Your task to perform on an android device: turn on improve location accuracy Image 0: 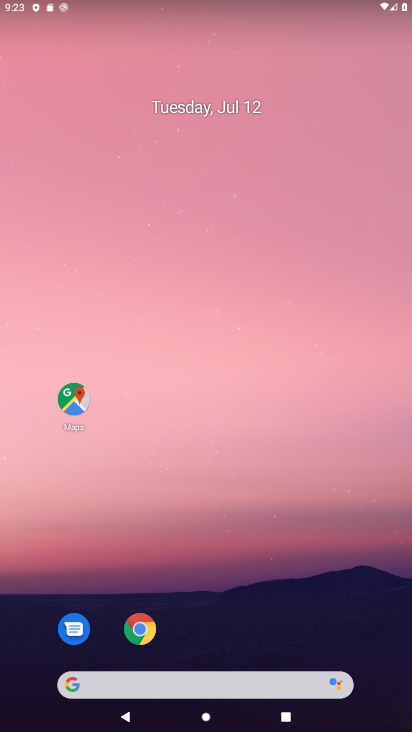
Step 0: drag from (213, 662) to (248, 227)
Your task to perform on an android device: turn on improve location accuracy Image 1: 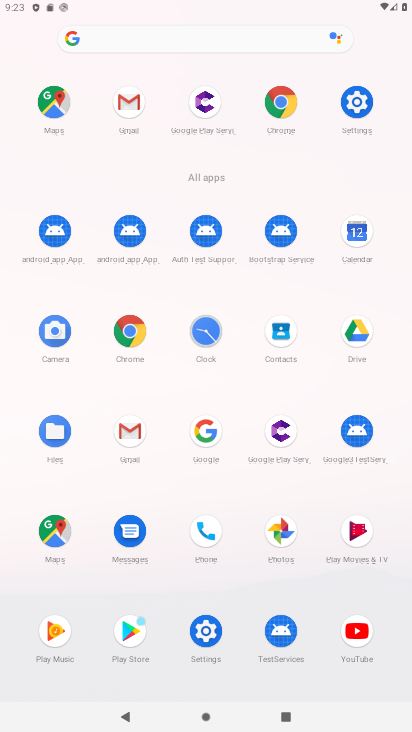
Step 1: click (210, 618)
Your task to perform on an android device: turn on improve location accuracy Image 2: 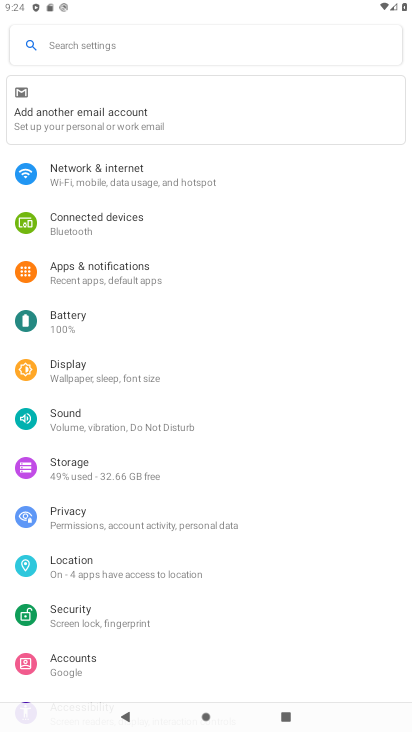
Step 2: click (79, 572)
Your task to perform on an android device: turn on improve location accuracy Image 3: 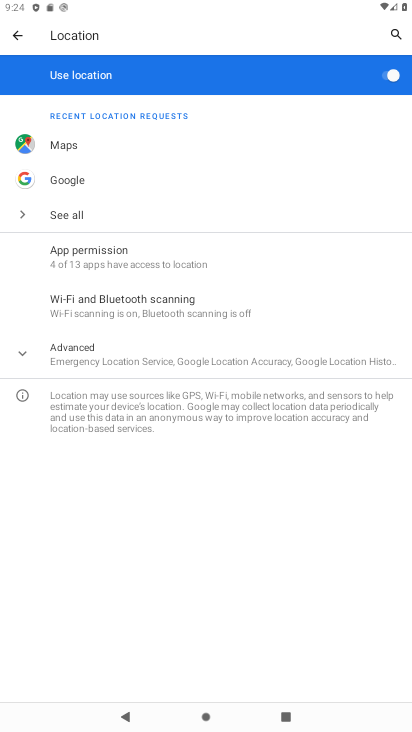
Step 3: click (140, 358)
Your task to perform on an android device: turn on improve location accuracy Image 4: 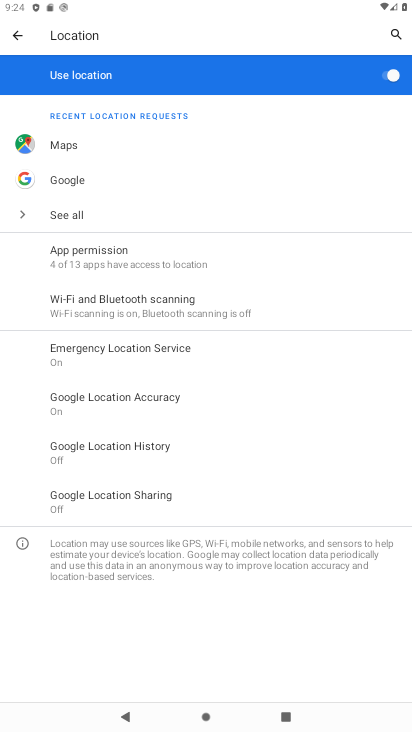
Step 4: click (144, 406)
Your task to perform on an android device: turn on improve location accuracy Image 5: 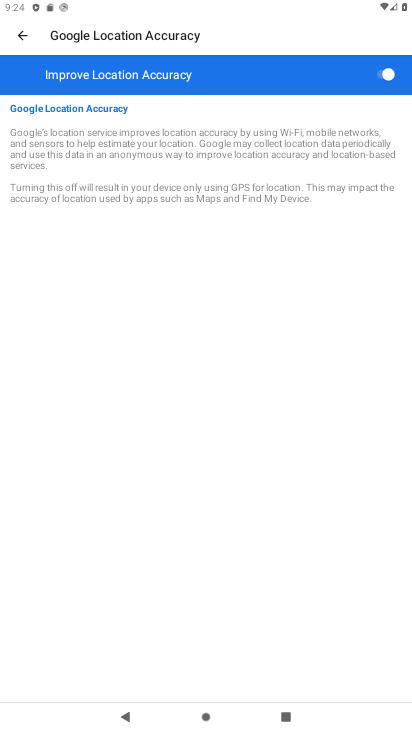
Step 5: task complete